Your task to perform on an android device: Go to settings Image 0: 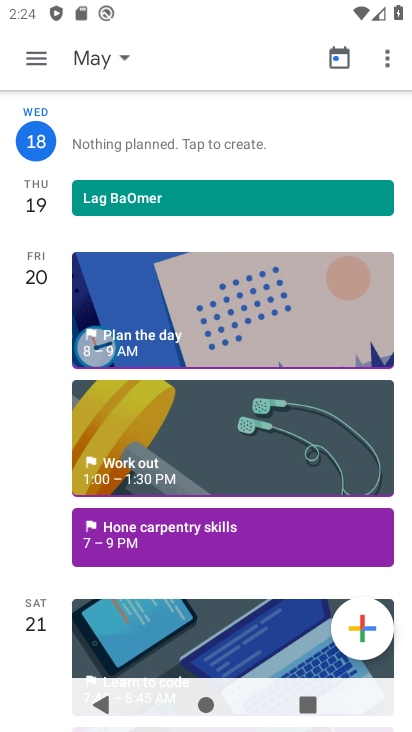
Step 0: press home button
Your task to perform on an android device: Go to settings Image 1: 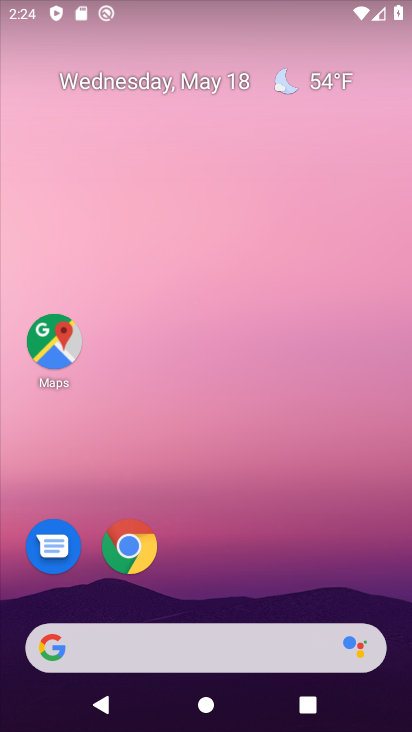
Step 1: drag from (295, 527) to (171, 73)
Your task to perform on an android device: Go to settings Image 2: 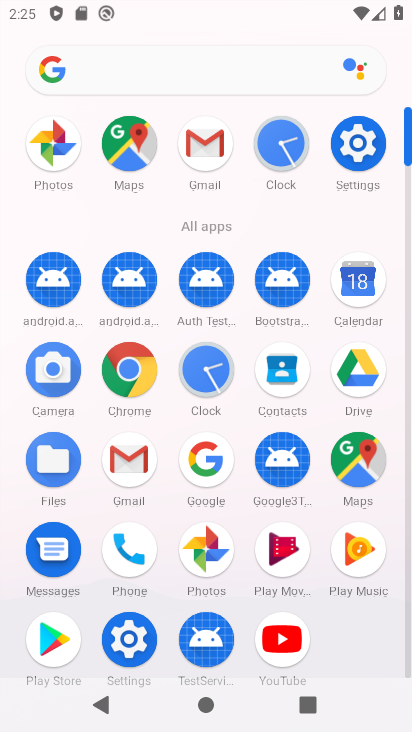
Step 2: click (373, 140)
Your task to perform on an android device: Go to settings Image 3: 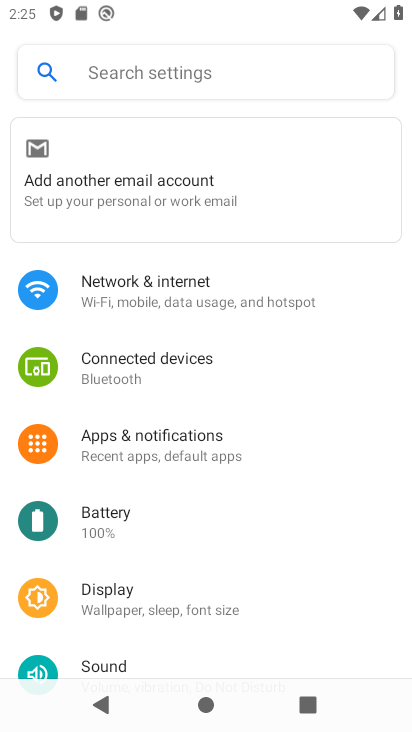
Step 3: task complete